Your task to perform on an android device: star an email in the gmail app Image 0: 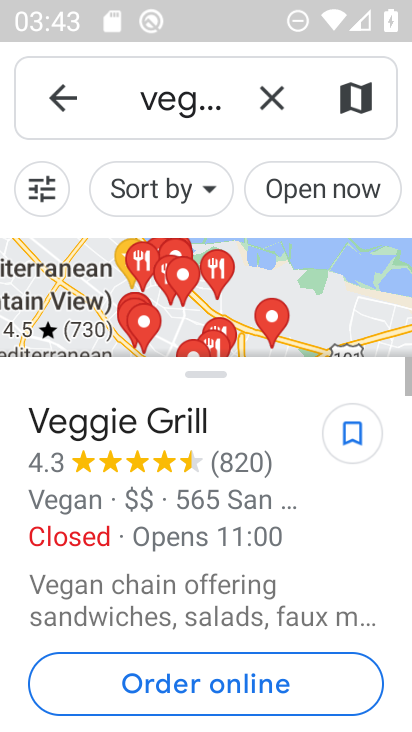
Step 0: press home button
Your task to perform on an android device: star an email in the gmail app Image 1: 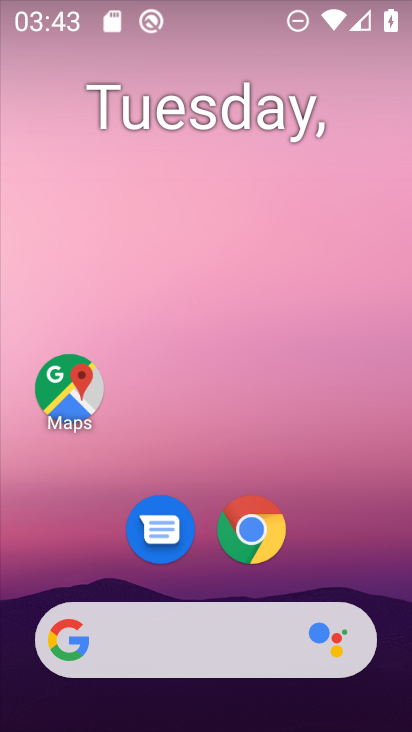
Step 1: drag from (349, 546) to (335, 195)
Your task to perform on an android device: star an email in the gmail app Image 2: 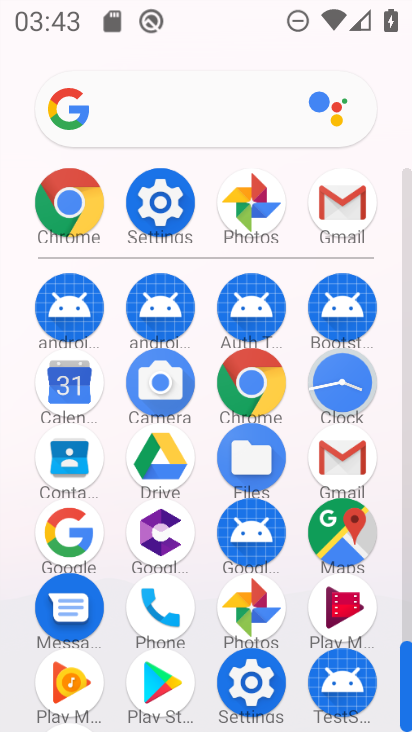
Step 2: click (355, 186)
Your task to perform on an android device: star an email in the gmail app Image 3: 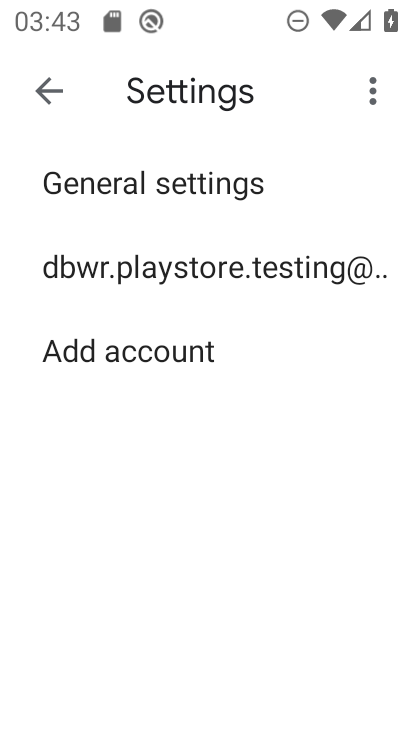
Step 3: click (60, 89)
Your task to perform on an android device: star an email in the gmail app Image 4: 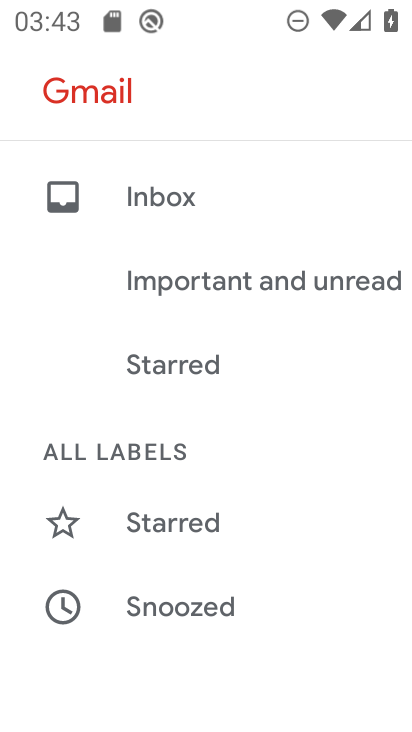
Step 4: drag from (139, 314) to (170, 607)
Your task to perform on an android device: star an email in the gmail app Image 5: 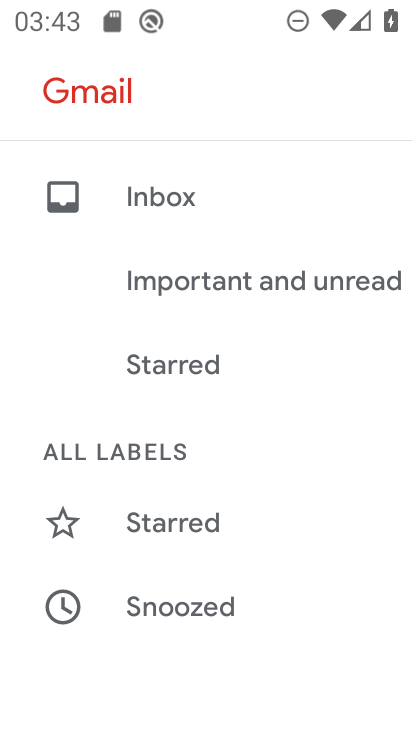
Step 5: click (150, 525)
Your task to perform on an android device: star an email in the gmail app Image 6: 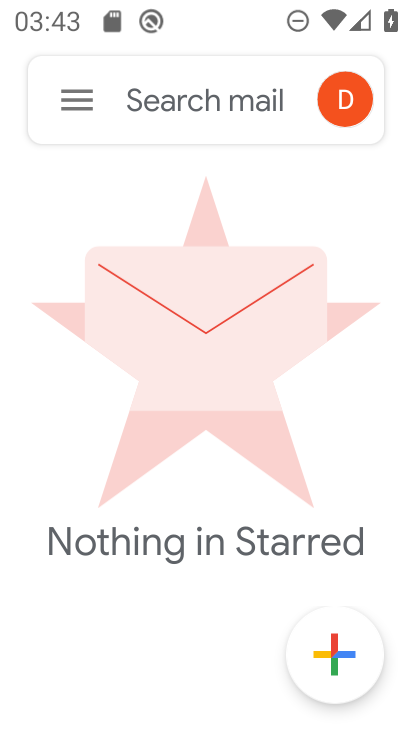
Step 6: task complete